Your task to perform on an android device: Go to calendar. Show me events next week Image 0: 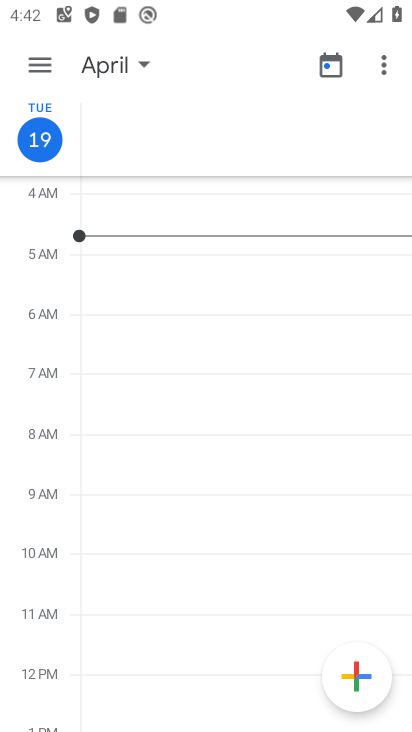
Step 0: click (68, 66)
Your task to perform on an android device: Go to calendar. Show me events next week Image 1: 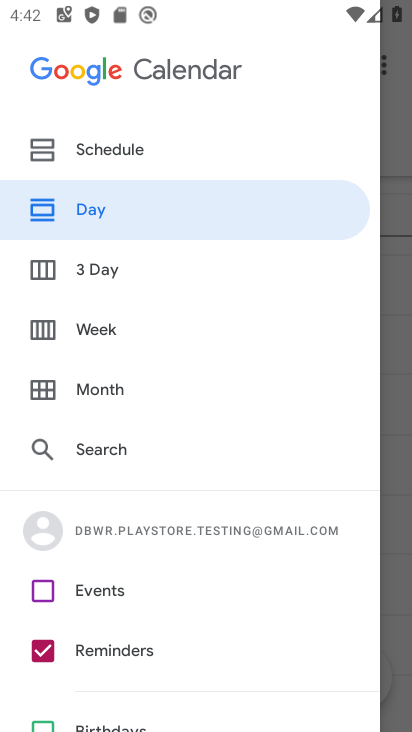
Step 1: click (118, 329)
Your task to perform on an android device: Go to calendar. Show me events next week Image 2: 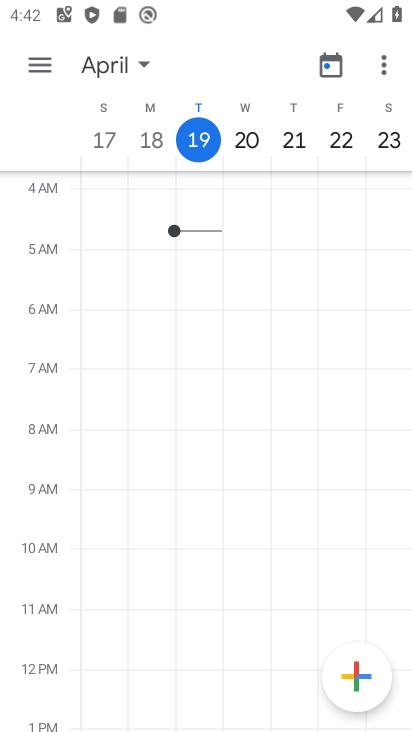
Step 2: task complete